Your task to perform on an android device: Search for "dell xps" on amazon, select the first entry, and add it to the cart. Image 0: 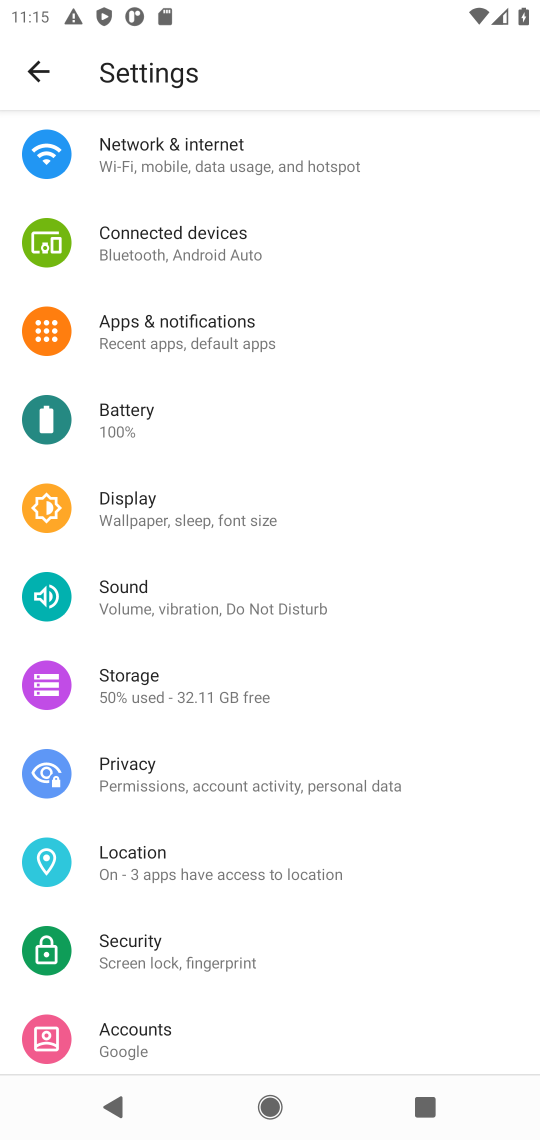
Step 0: press home button
Your task to perform on an android device: Search for "dell xps" on amazon, select the first entry, and add it to the cart. Image 1: 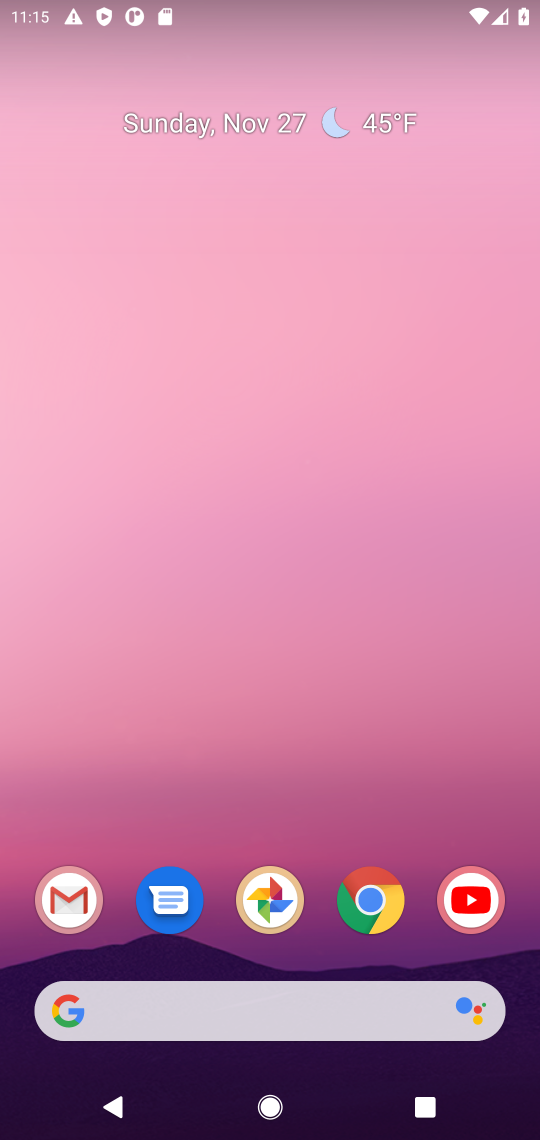
Step 1: click (378, 897)
Your task to perform on an android device: Search for "dell xps" on amazon, select the first entry, and add it to the cart. Image 2: 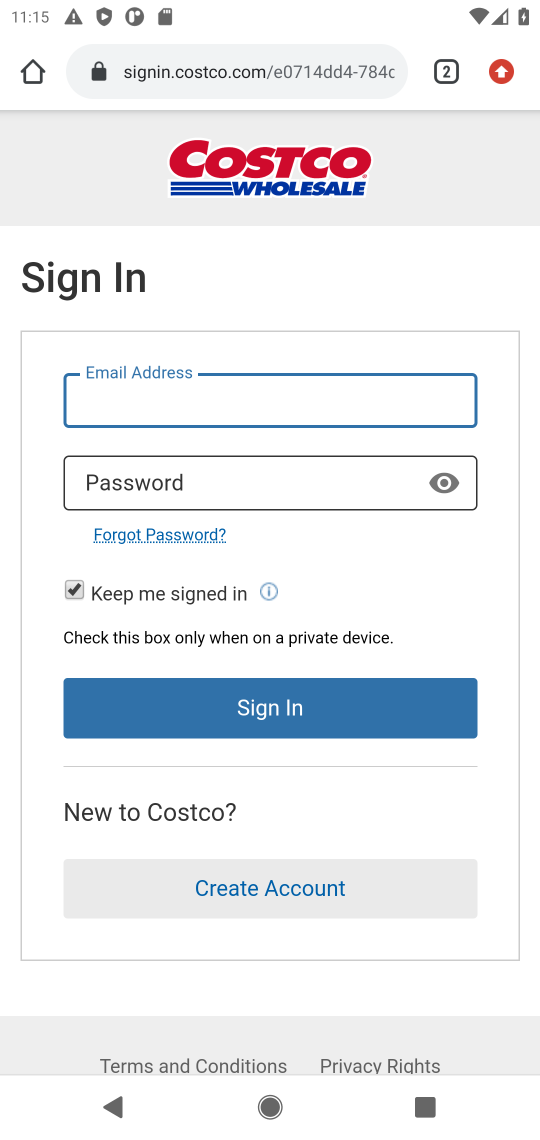
Step 2: click (216, 68)
Your task to perform on an android device: Search for "dell xps" on amazon, select the first entry, and add it to the cart. Image 3: 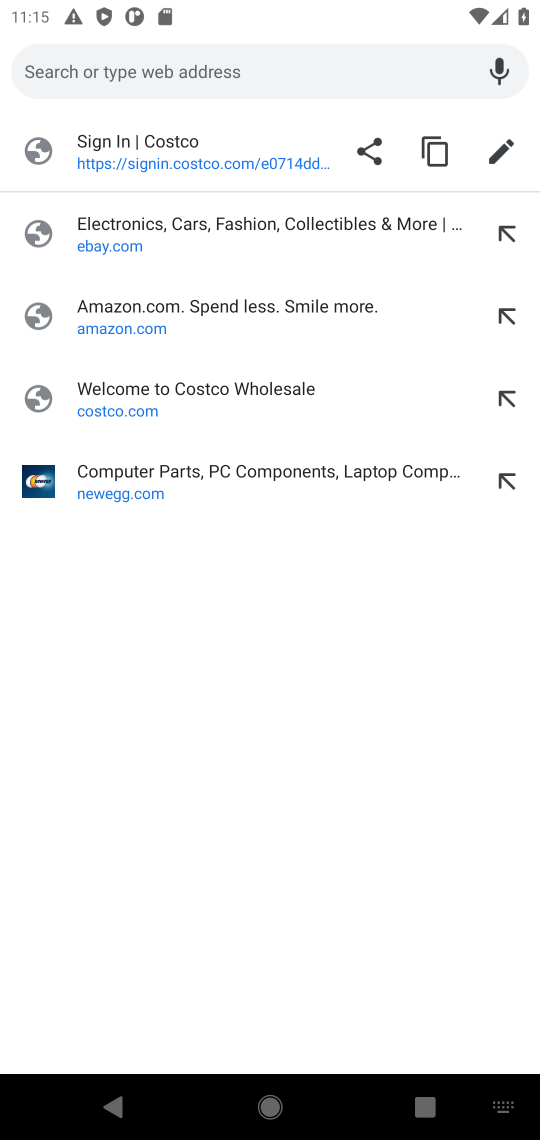
Step 3: click (99, 324)
Your task to perform on an android device: Search for "dell xps" on amazon, select the first entry, and add it to the cart. Image 4: 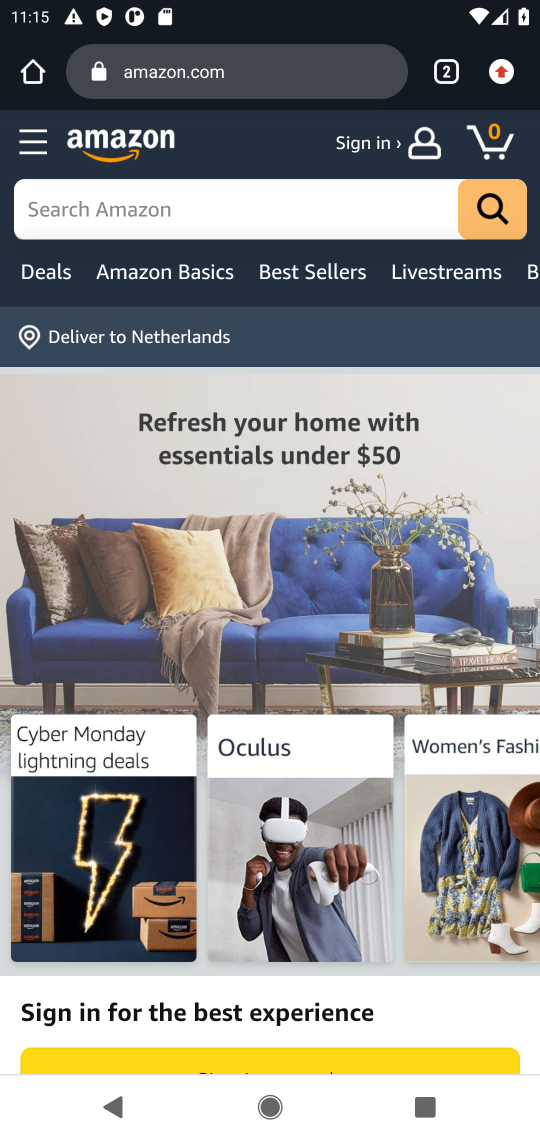
Step 4: click (114, 207)
Your task to perform on an android device: Search for "dell xps" on amazon, select the first entry, and add it to the cart. Image 5: 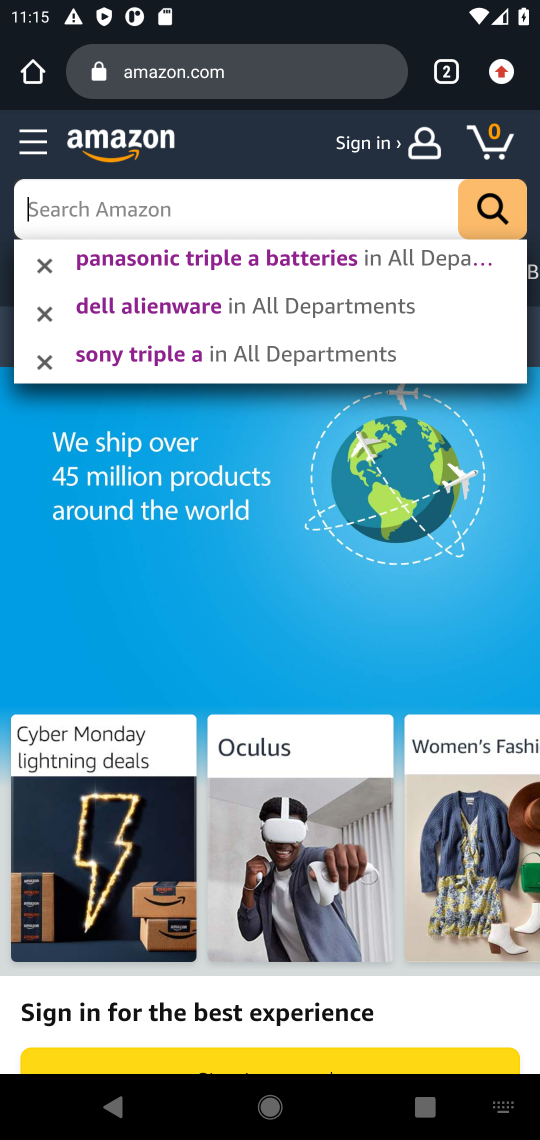
Step 5: type "dell xps"
Your task to perform on an android device: Search for "dell xps" on amazon, select the first entry, and add it to the cart. Image 6: 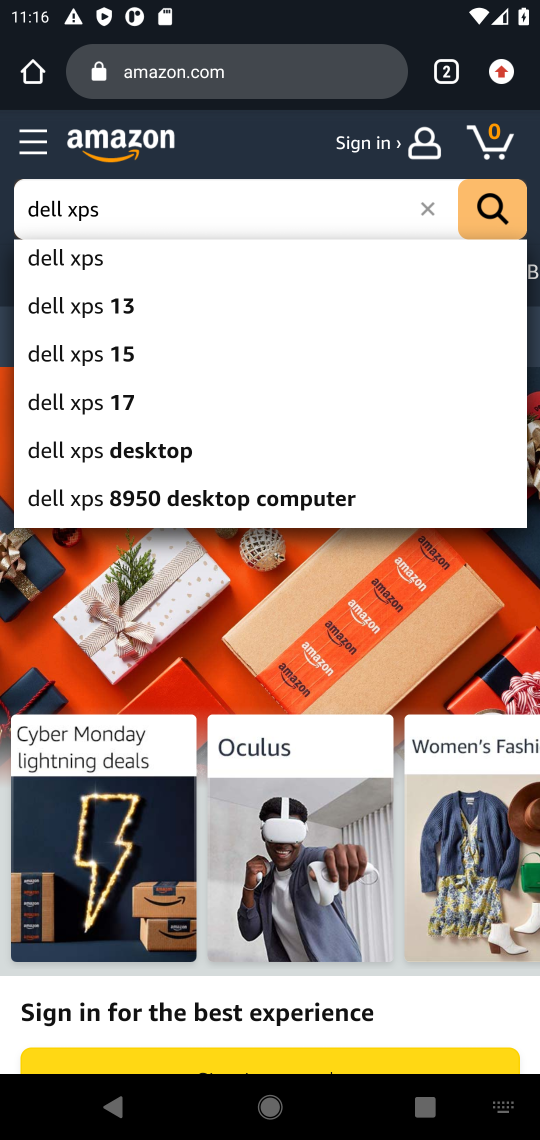
Step 6: click (38, 265)
Your task to perform on an android device: Search for "dell xps" on amazon, select the first entry, and add it to the cart. Image 7: 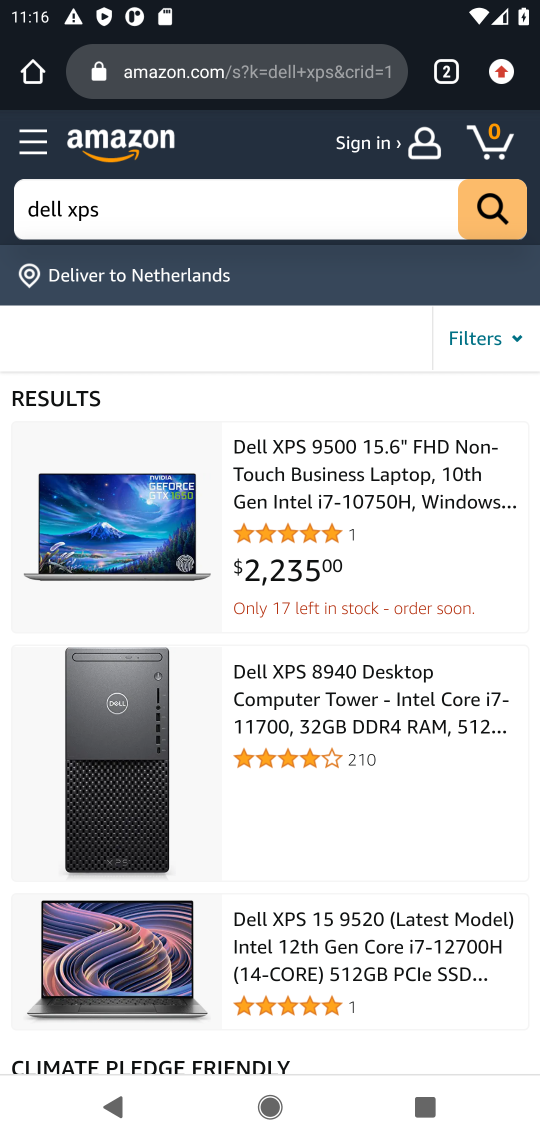
Step 7: click (288, 501)
Your task to perform on an android device: Search for "dell xps" on amazon, select the first entry, and add it to the cart. Image 8: 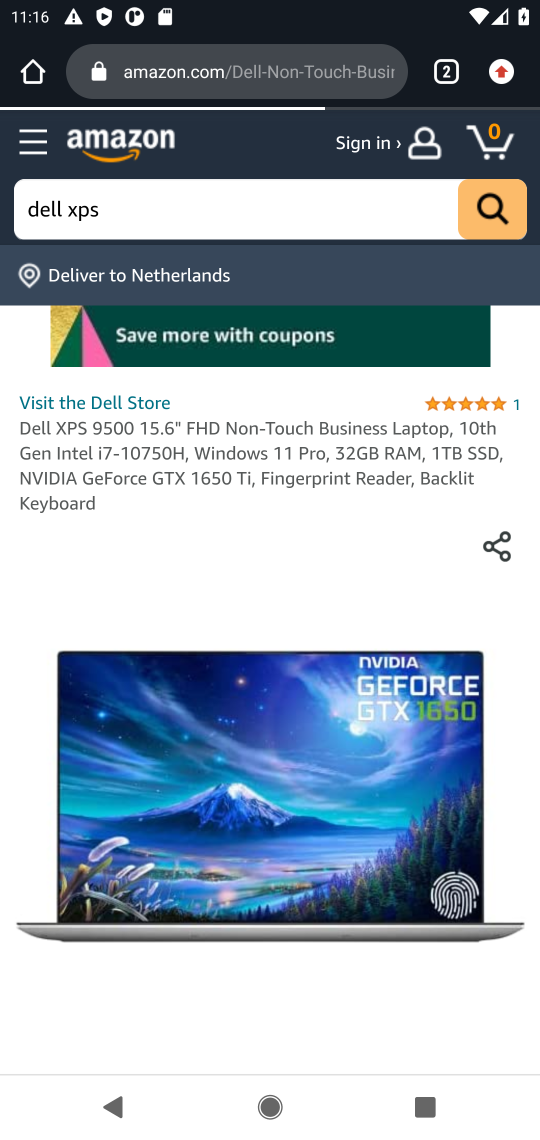
Step 8: drag from (231, 715) to (254, 268)
Your task to perform on an android device: Search for "dell xps" on amazon, select the first entry, and add it to the cart. Image 9: 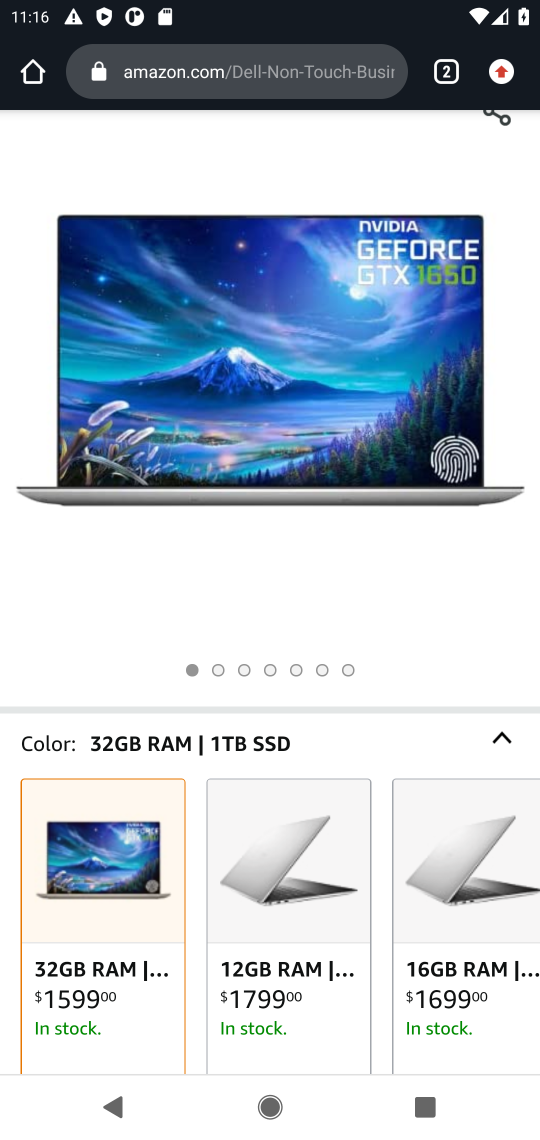
Step 9: drag from (199, 686) to (206, 254)
Your task to perform on an android device: Search for "dell xps" on amazon, select the first entry, and add it to the cart. Image 10: 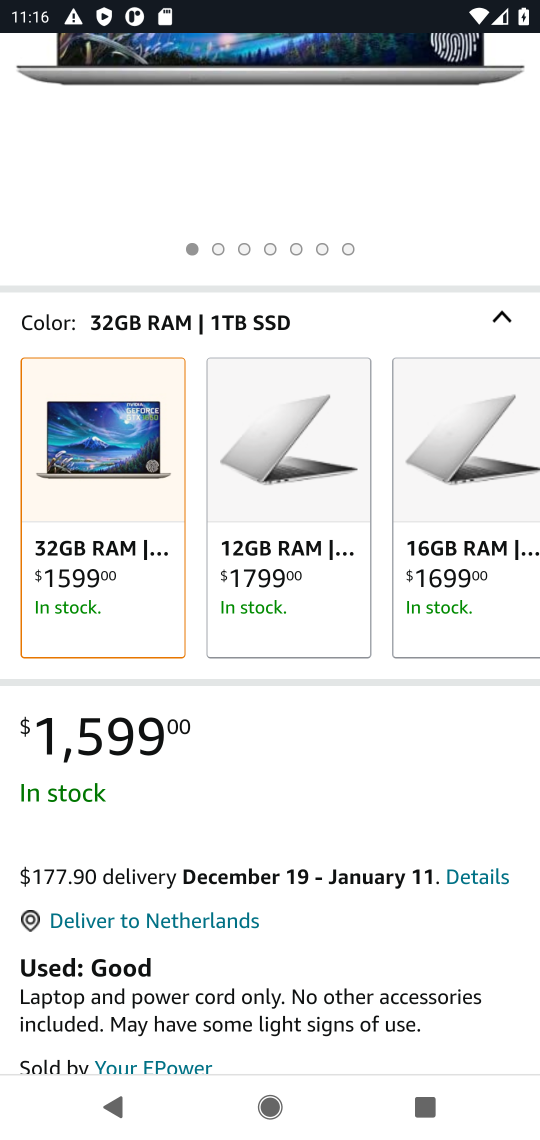
Step 10: drag from (205, 838) to (219, 361)
Your task to perform on an android device: Search for "dell xps" on amazon, select the first entry, and add it to the cart. Image 11: 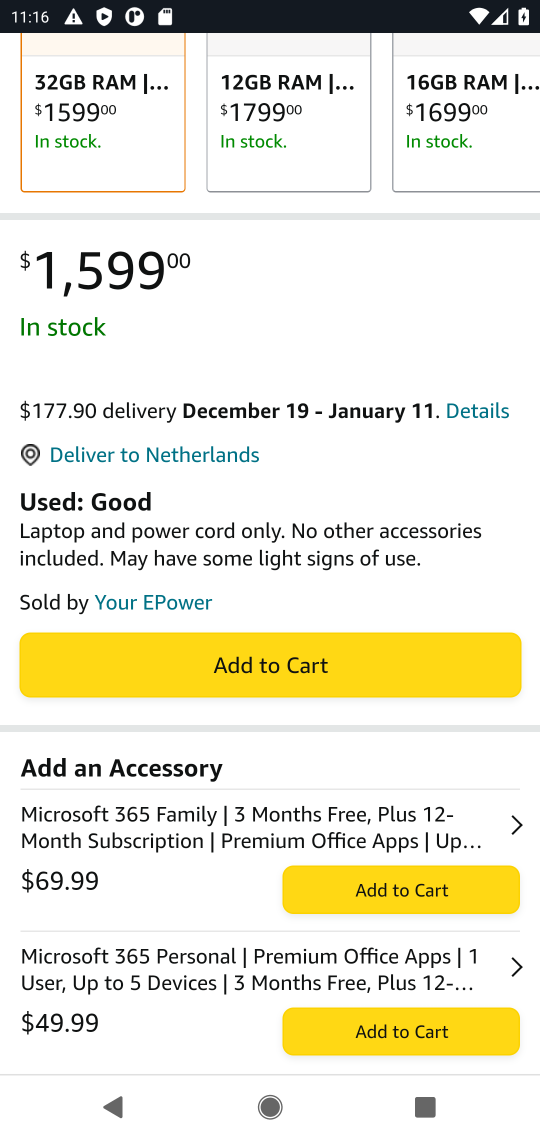
Step 11: click (284, 650)
Your task to perform on an android device: Search for "dell xps" on amazon, select the first entry, and add it to the cart. Image 12: 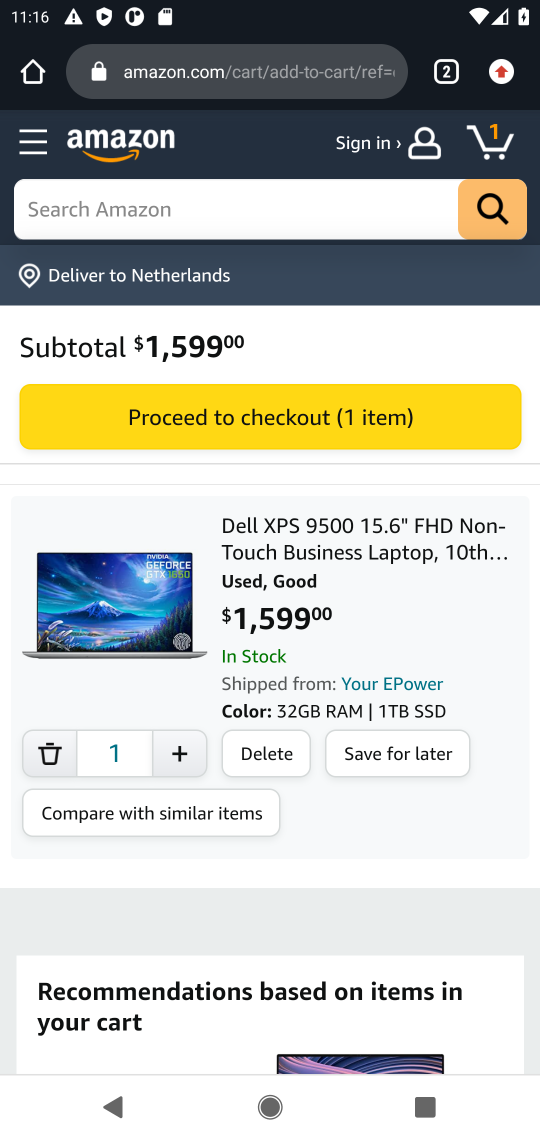
Step 12: task complete